Your task to perform on an android device: turn on the 24-hour format for clock Image 0: 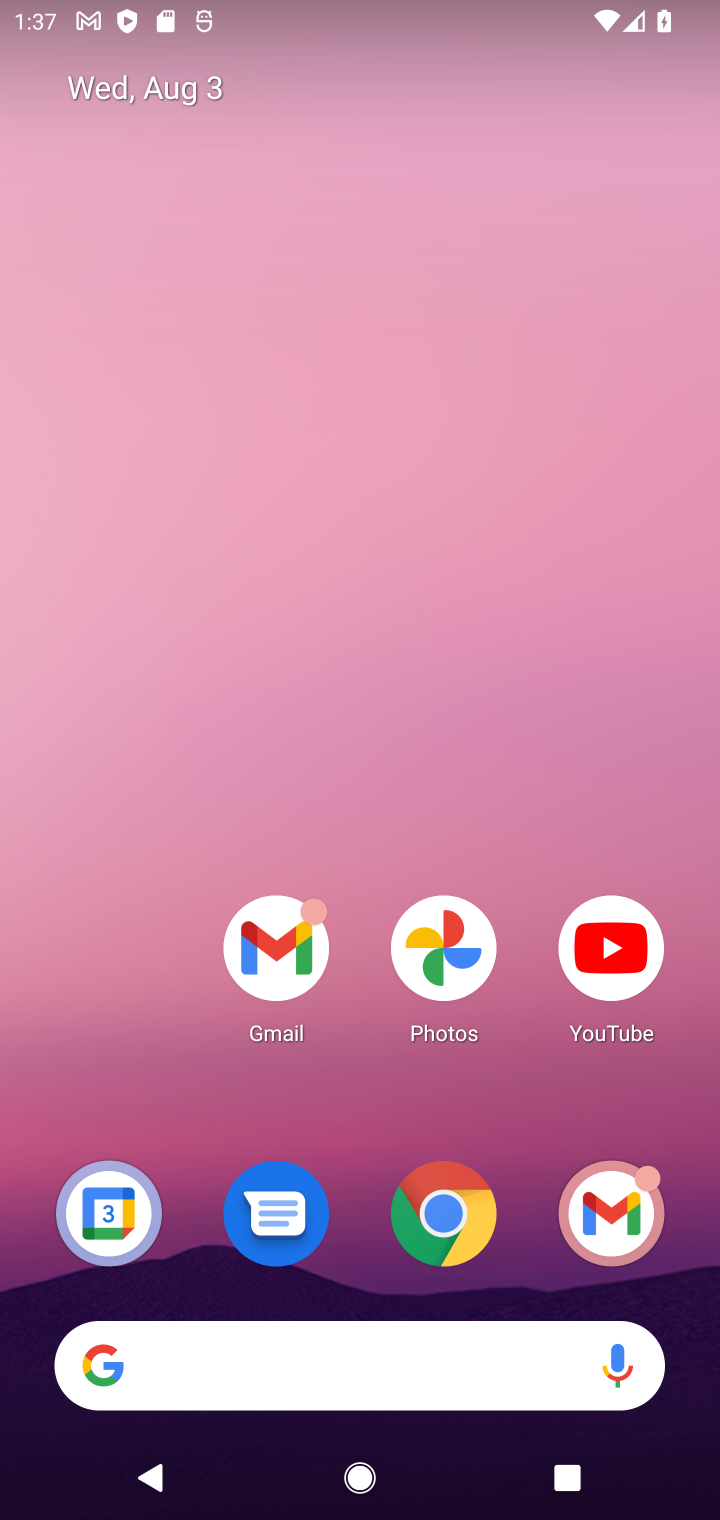
Step 0: drag from (399, 1166) to (599, 5)
Your task to perform on an android device: turn on the 24-hour format for clock Image 1: 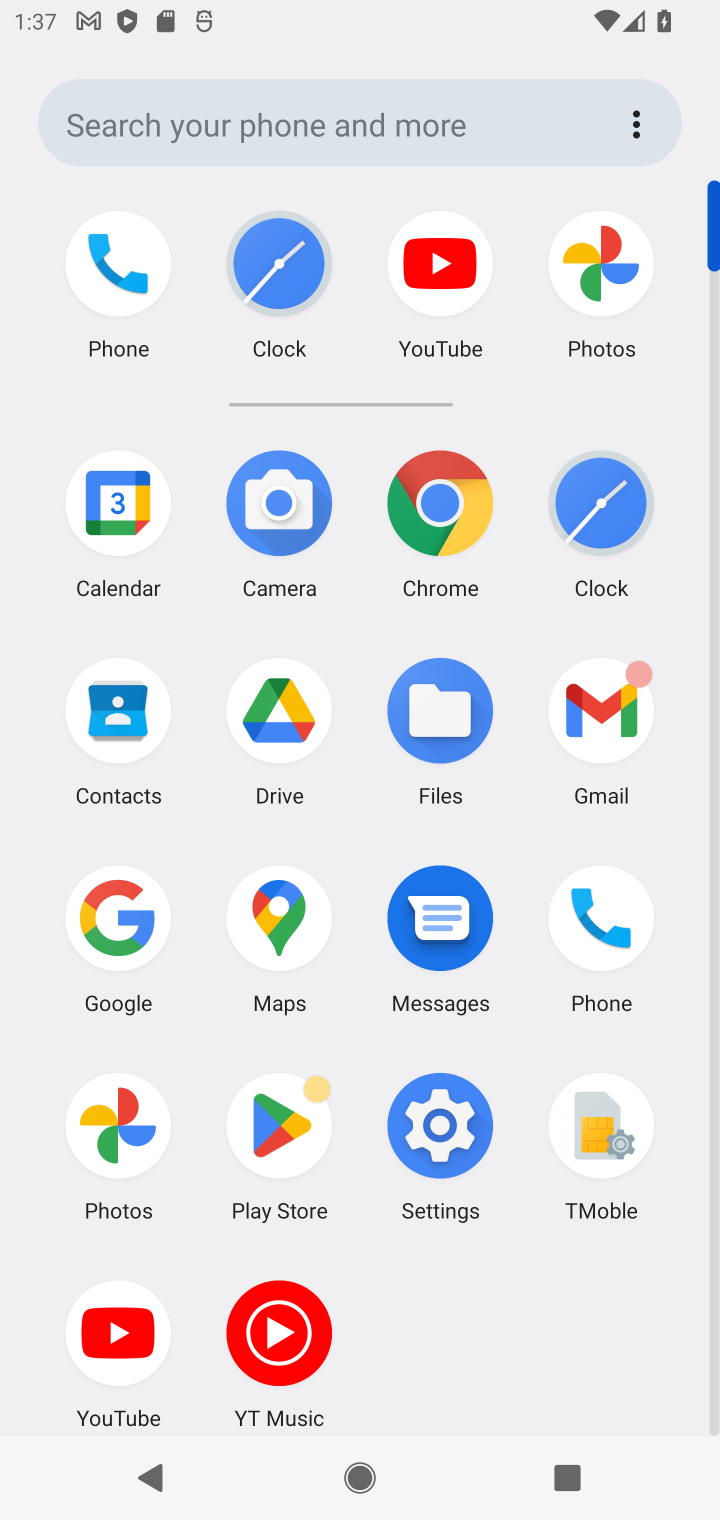
Step 1: click (607, 492)
Your task to perform on an android device: turn on the 24-hour format for clock Image 2: 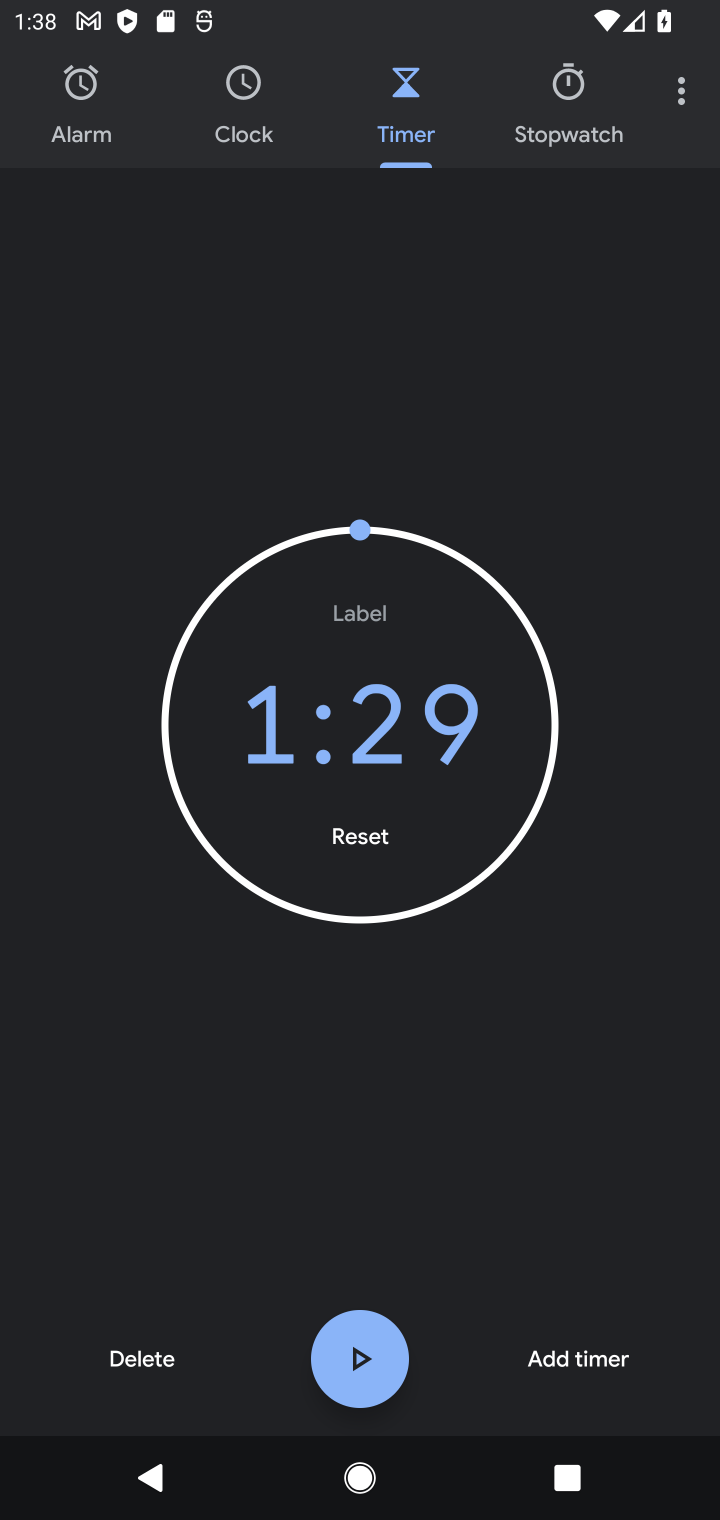
Step 2: click (679, 92)
Your task to perform on an android device: turn on the 24-hour format for clock Image 3: 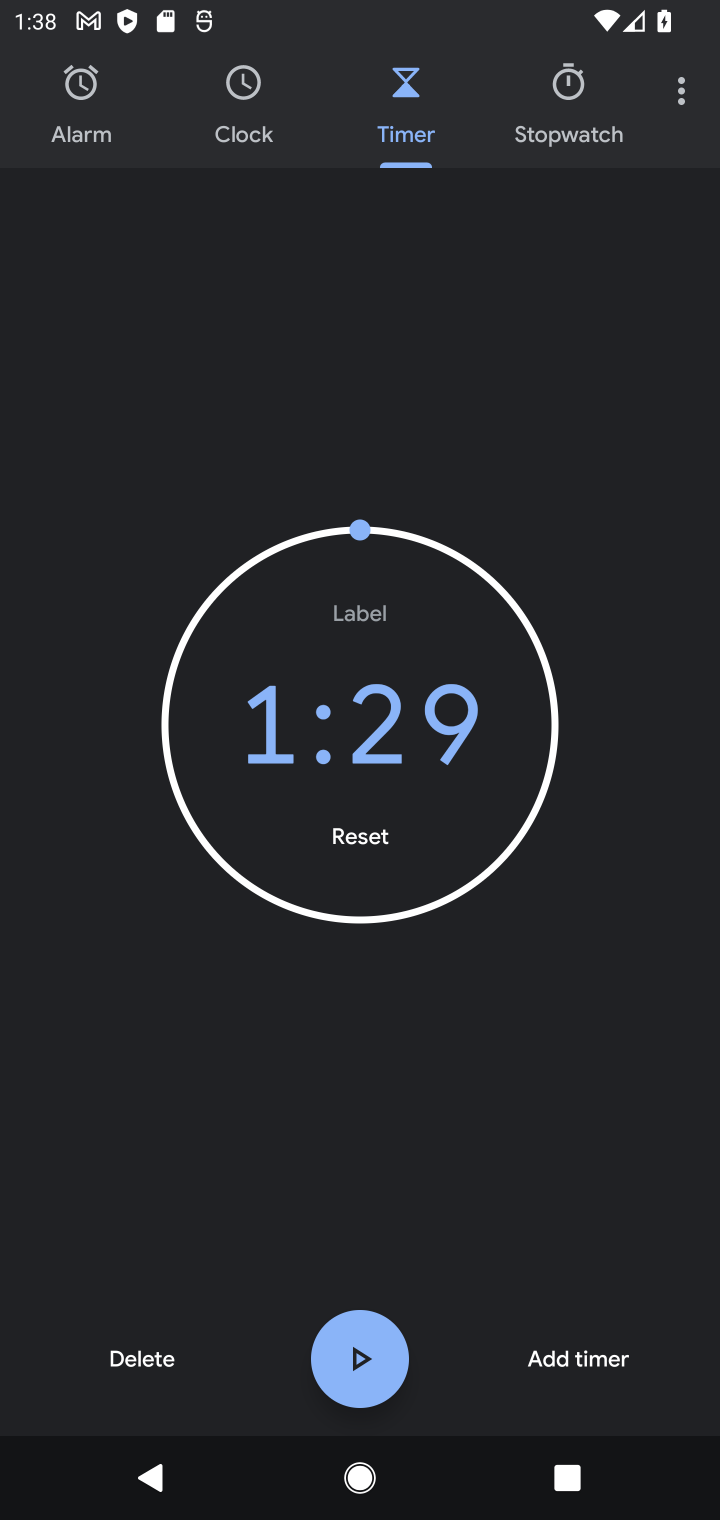
Step 3: click (668, 88)
Your task to perform on an android device: turn on the 24-hour format for clock Image 4: 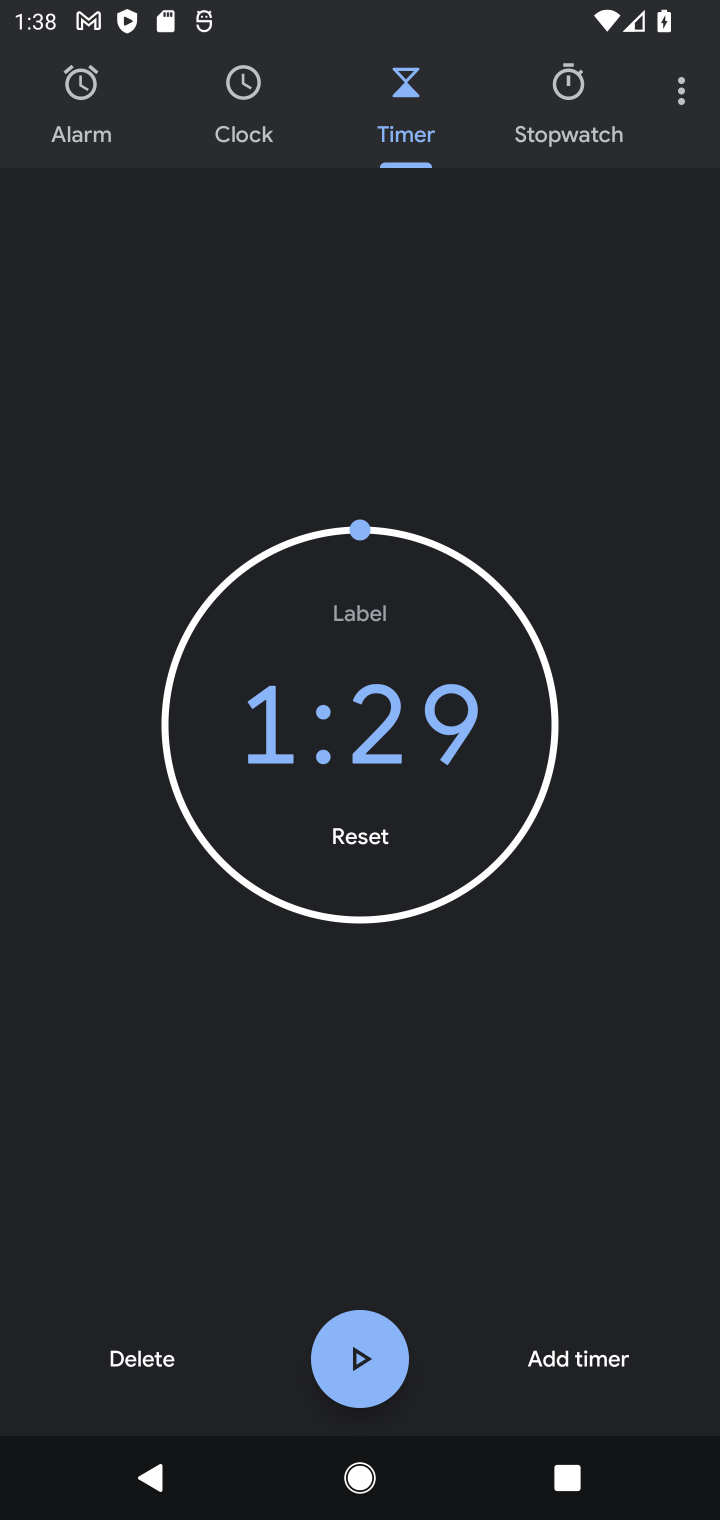
Step 4: click (677, 86)
Your task to perform on an android device: turn on the 24-hour format for clock Image 5: 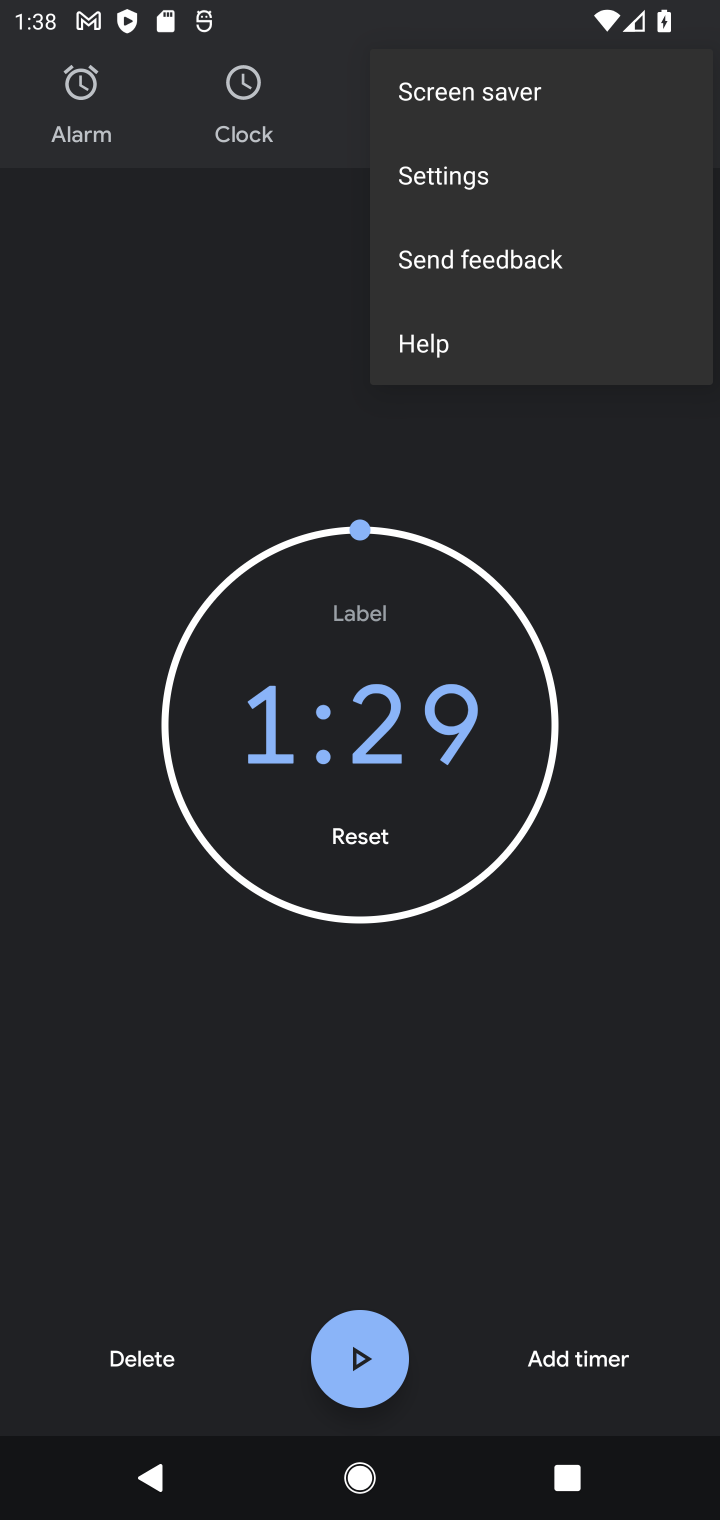
Step 5: click (499, 183)
Your task to perform on an android device: turn on the 24-hour format for clock Image 6: 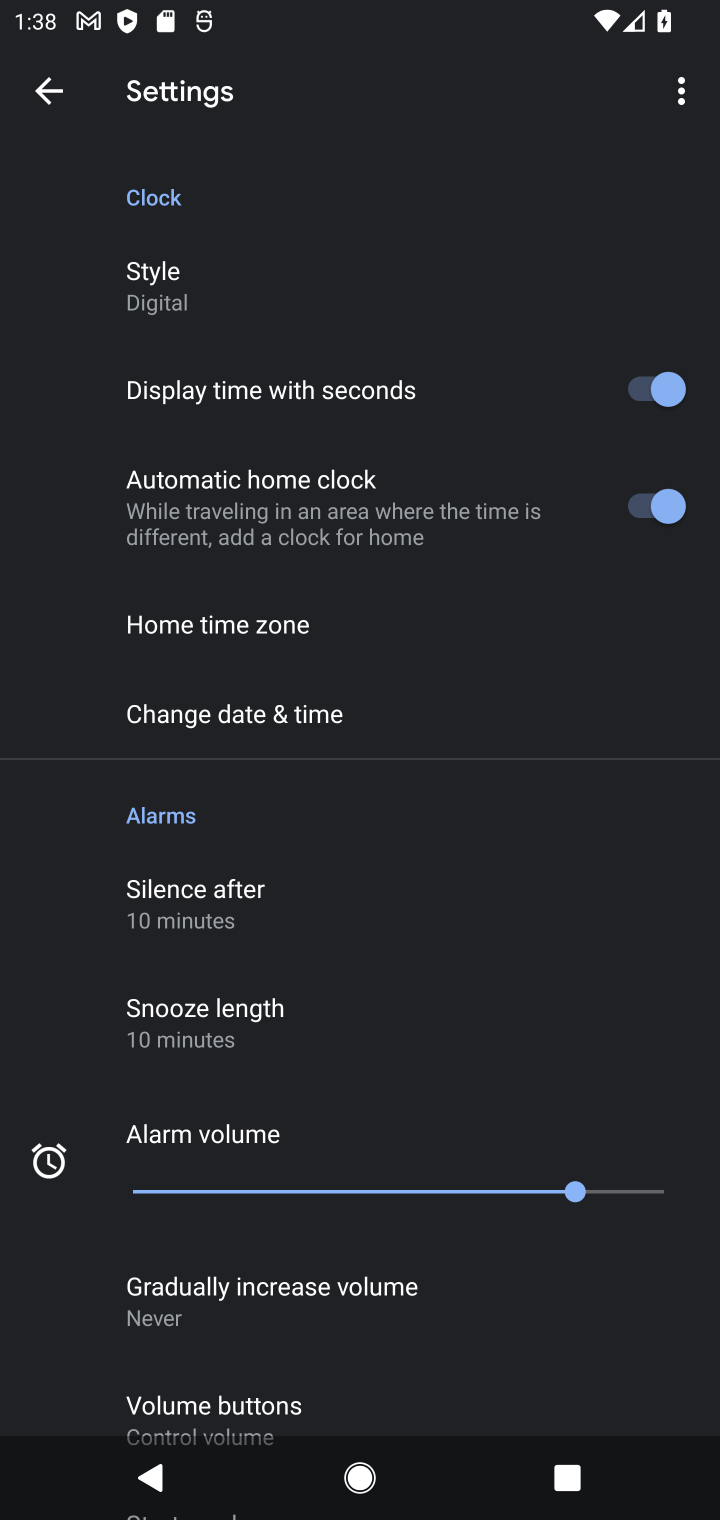
Step 6: click (342, 725)
Your task to perform on an android device: turn on the 24-hour format for clock Image 7: 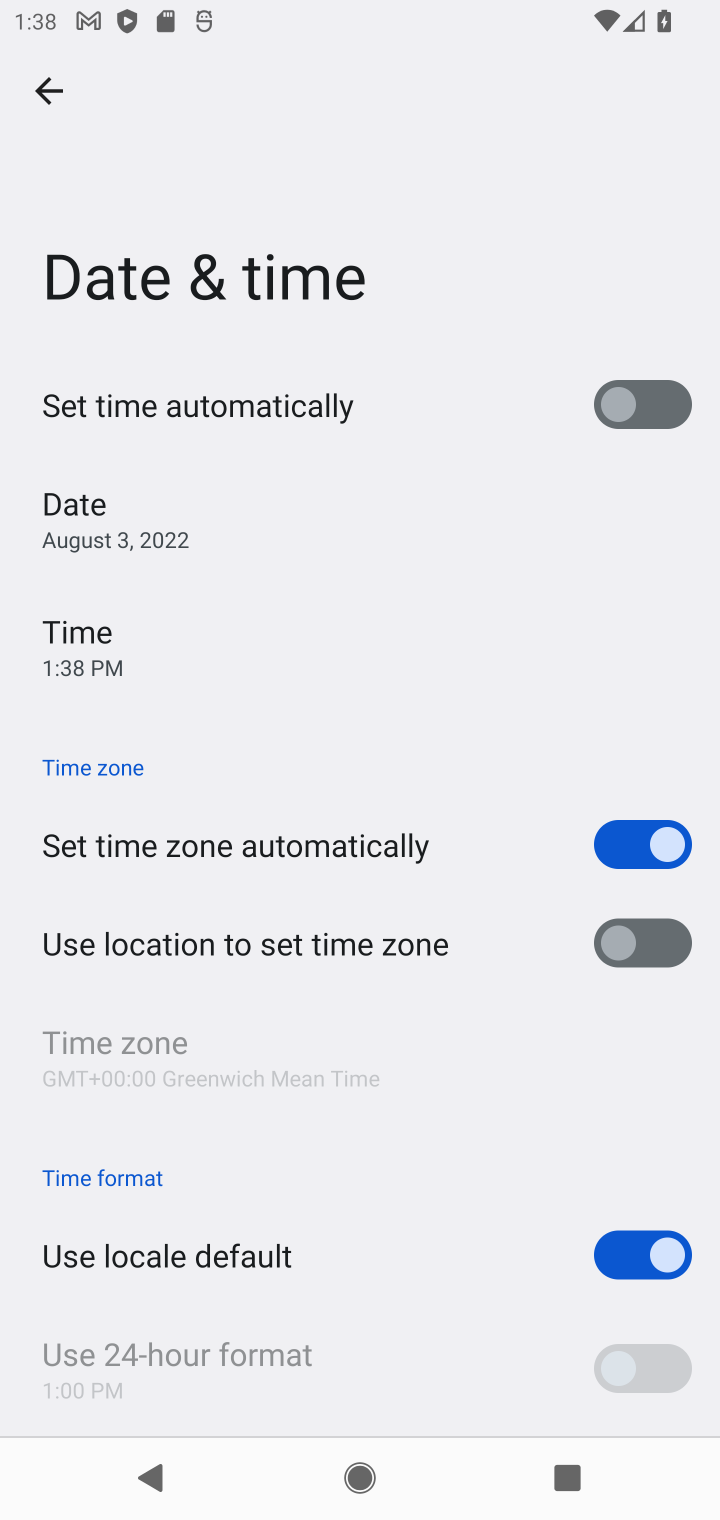
Step 7: click (624, 1250)
Your task to perform on an android device: turn on the 24-hour format for clock Image 8: 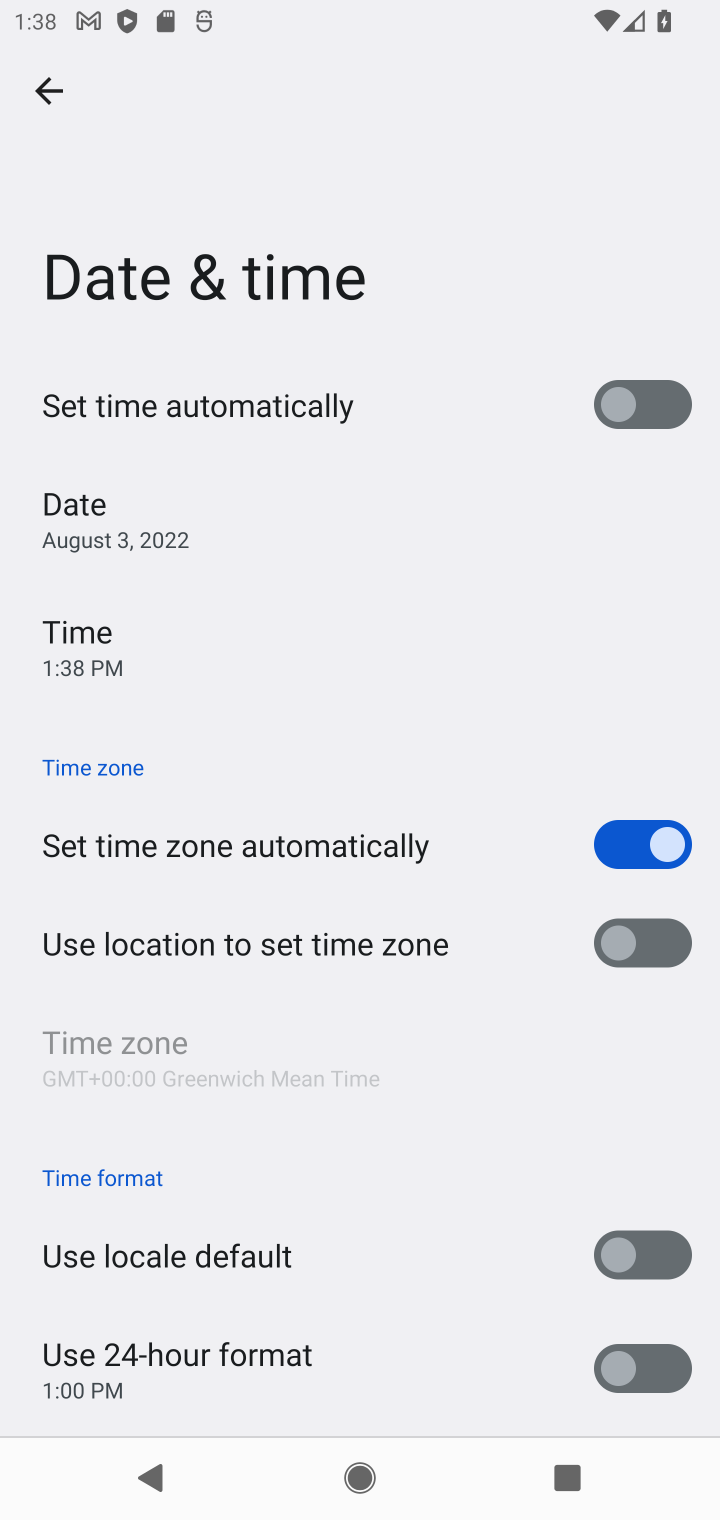
Step 8: task complete